Your task to perform on an android device: Is it going to rain this weekend? Image 0: 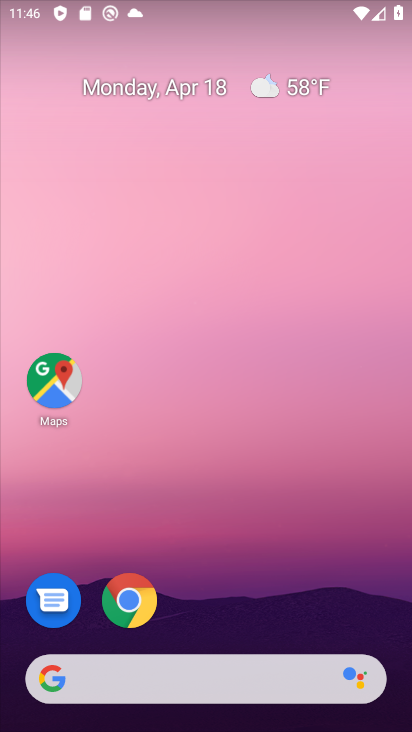
Step 0: drag from (260, 708) to (325, 267)
Your task to perform on an android device: Is it going to rain this weekend? Image 1: 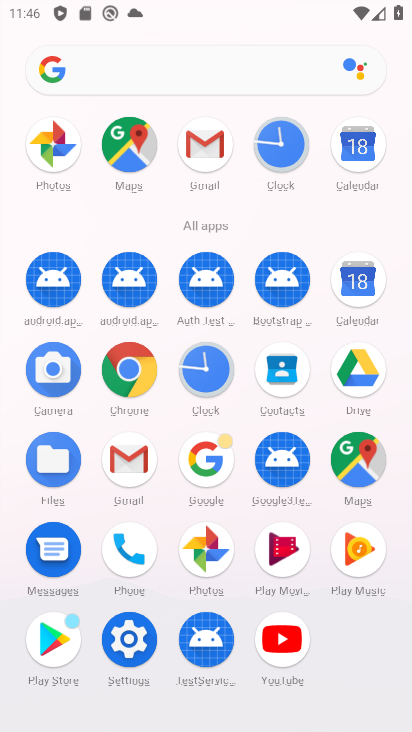
Step 1: click (137, 81)
Your task to perform on an android device: Is it going to rain this weekend? Image 2: 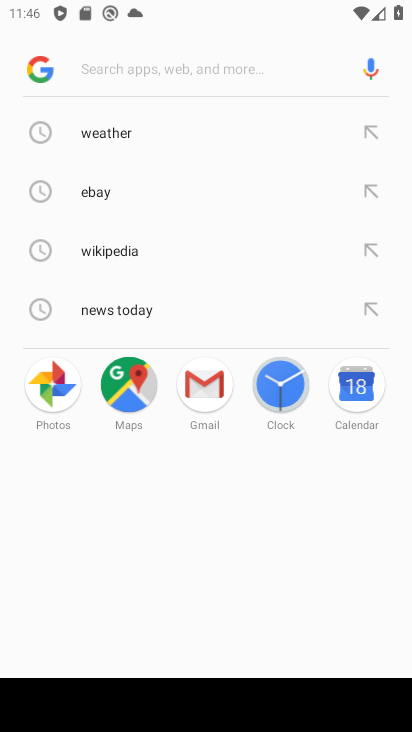
Step 2: click (143, 134)
Your task to perform on an android device: Is it going to rain this weekend? Image 3: 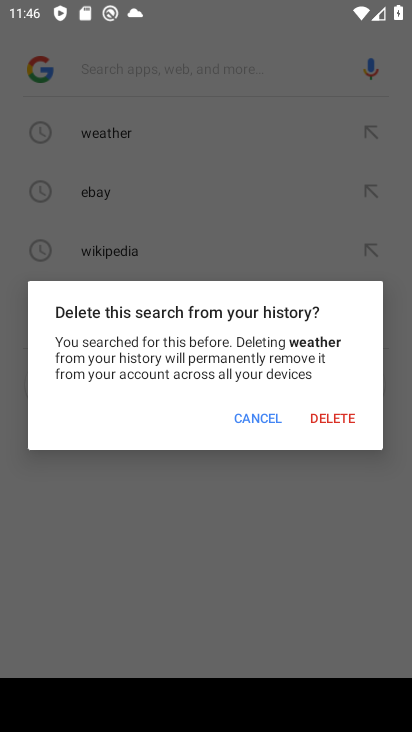
Step 3: click (257, 415)
Your task to perform on an android device: Is it going to rain this weekend? Image 4: 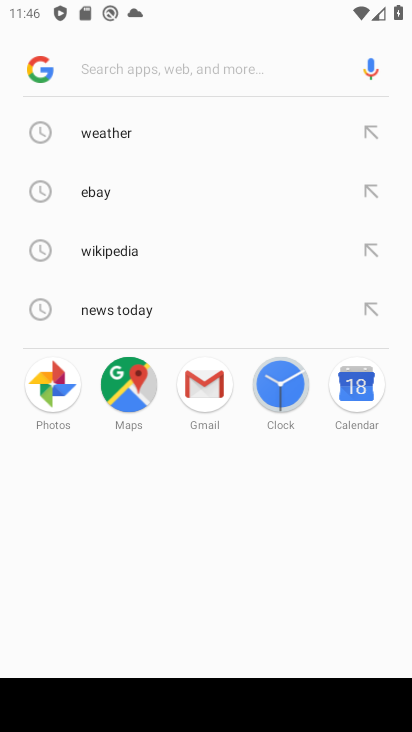
Step 4: click (160, 145)
Your task to perform on an android device: Is it going to rain this weekend? Image 5: 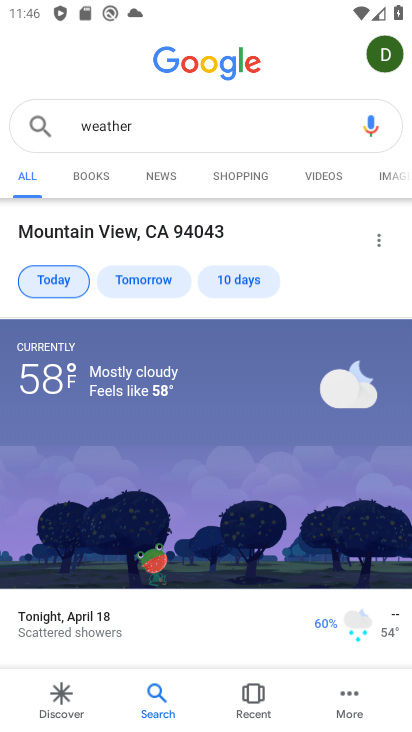
Step 5: click (213, 276)
Your task to perform on an android device: Is it going to rain this weekend? Image 6: 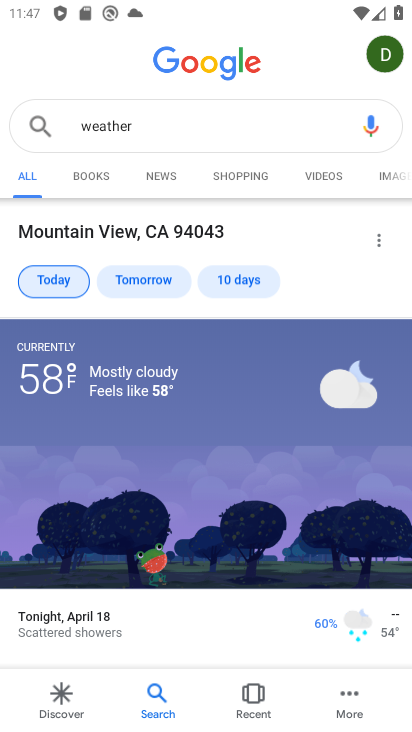
Step 6: click (222, 277)
Your task to perform on an android device: Is it going to rain this weekend? Image 7: 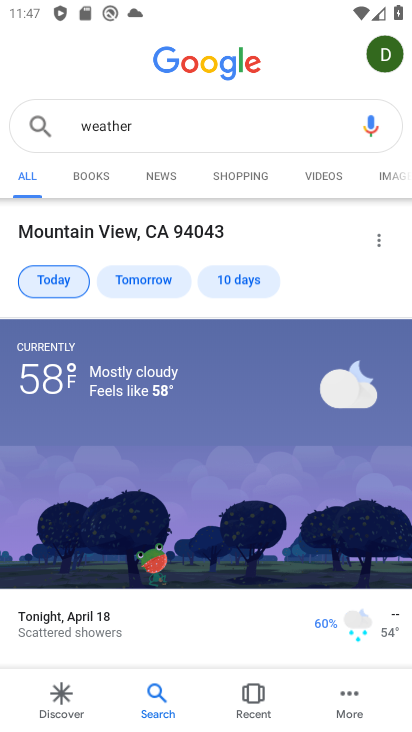
Step 7: click (244, 281)
Your task to perform on an android device: Is it going to rain this weekend? Image 8: 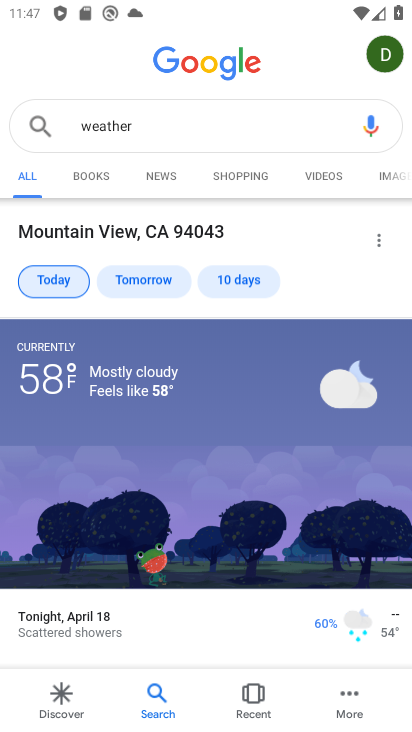
Step 8: click (237, 277)
Your task to perform on an android device: Is it going to rain this weekend? Image 9: 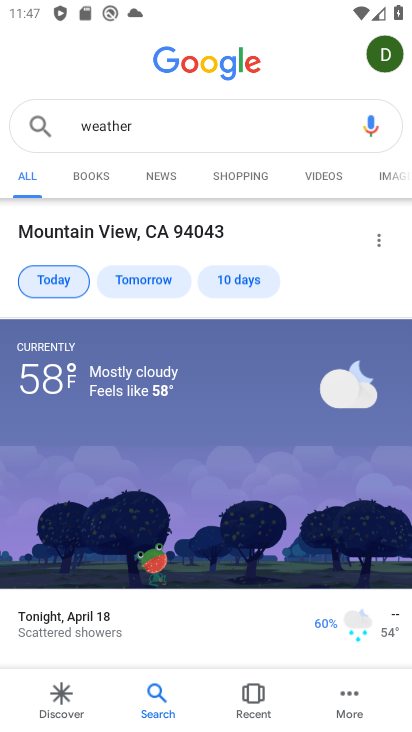
Step 9: click (237, 271)
Your task to perform on an android device: Is it going to rain this weekend? Image 10: 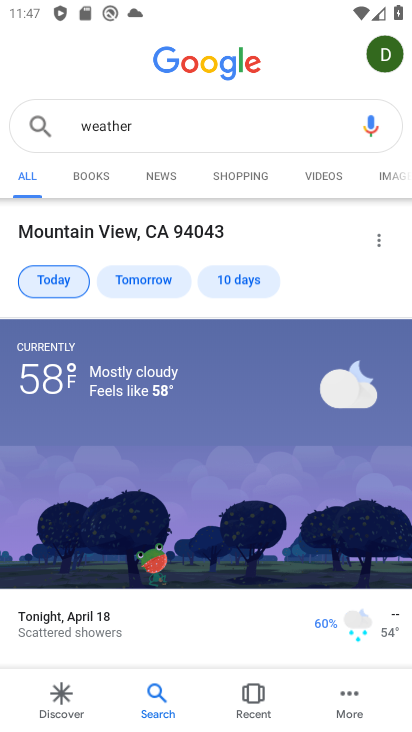
Step 10: drag from (252, 366) to (261, 196)
Your task to perform on an android device: Is it going to rain this weekend? Image 11: 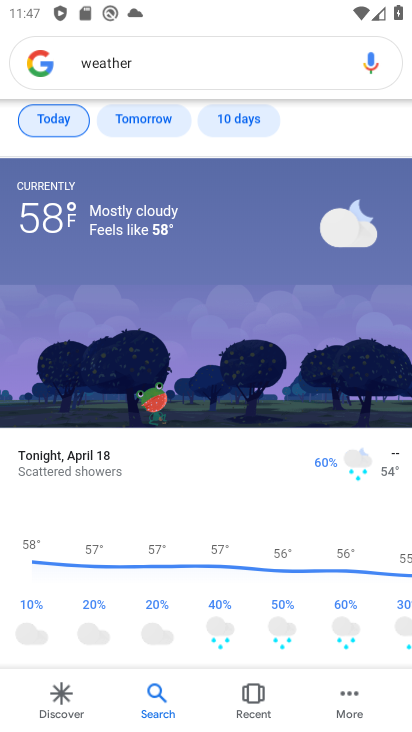
Step 11: drag from (210, 496) to (225, 398)
Your task to perform on an android device: Is it going to rain this weekend? Image 12: 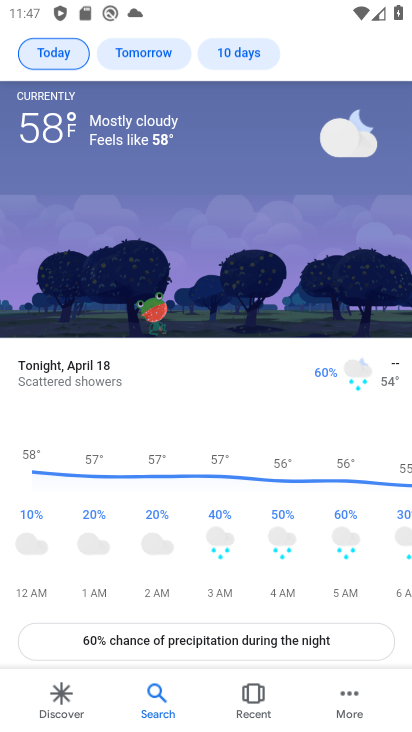
Step 12: click (244, 57)
Your task to perform on an android device: Is it going to rain this weekend? Image 13: 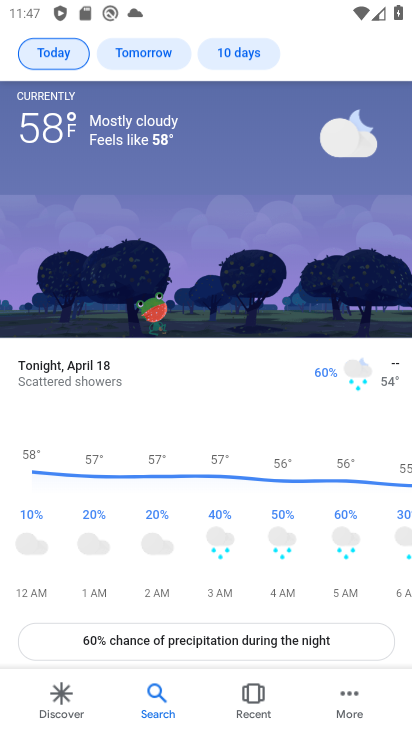
Step 13: drag from (140, 444) to (145, 324)
Your task to perform on an android device: Is it going to rain this weekend? Image 14: 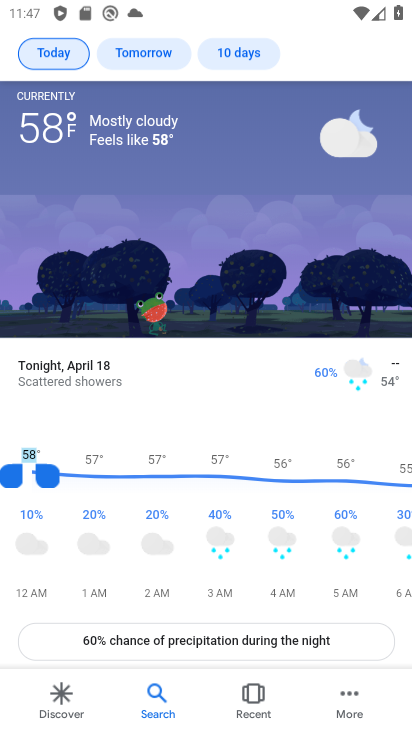
Step 14: drag from (145, 488) to (157, 284)
Your task to perform on an android device: Is it going to rain this weekend? Image 15: 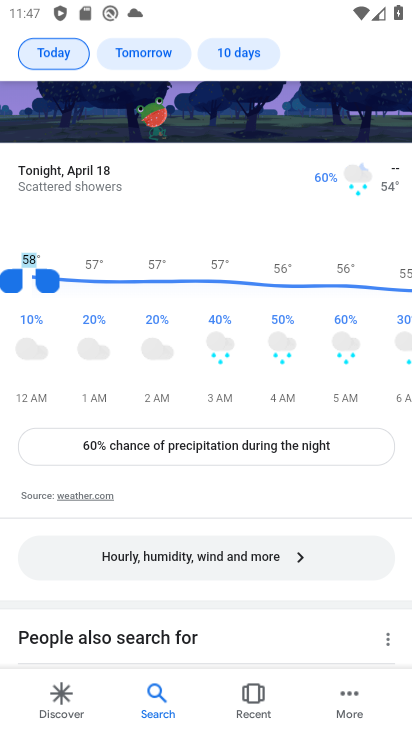
Step 15: click (160, 448)
Your task to perform on an android device: Is it going to rain this weekend? Image 16: 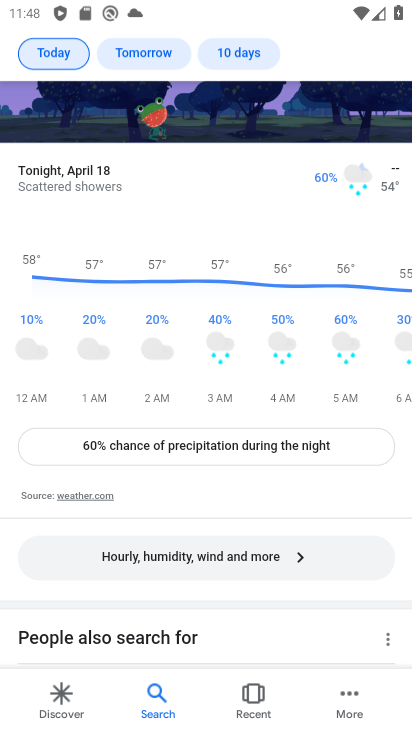
Step 16: click (225, 50)
Your task to perform on an android device: Is it going to rain this weekend? Image 17: 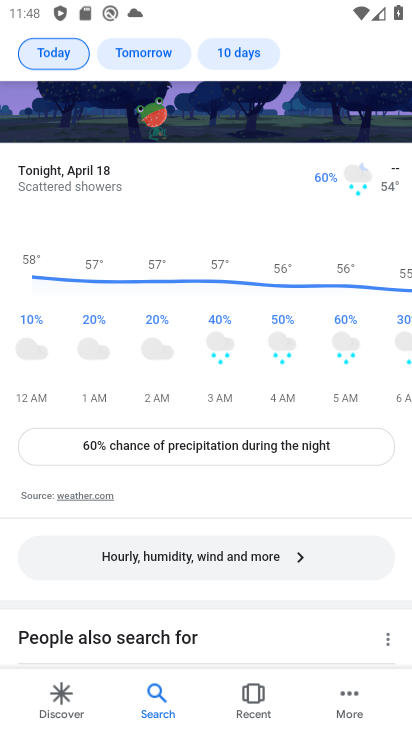
Step 17: task complete